Your task to perform on an android device: turn on sleep mode Image 0: 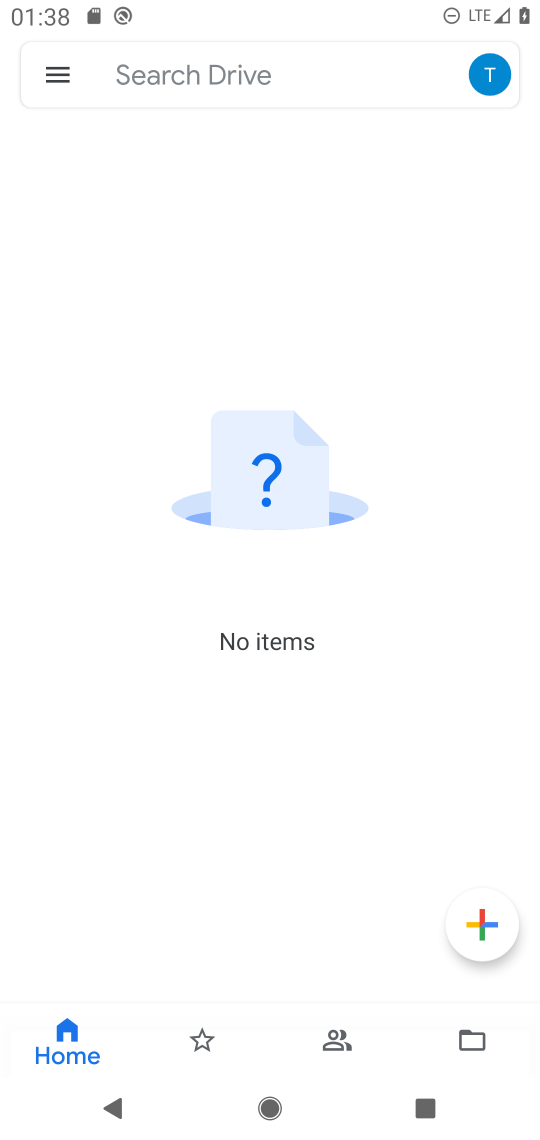
Step 0: press home button
Your task to perform on an android device: turn on sleep mode Image 1: 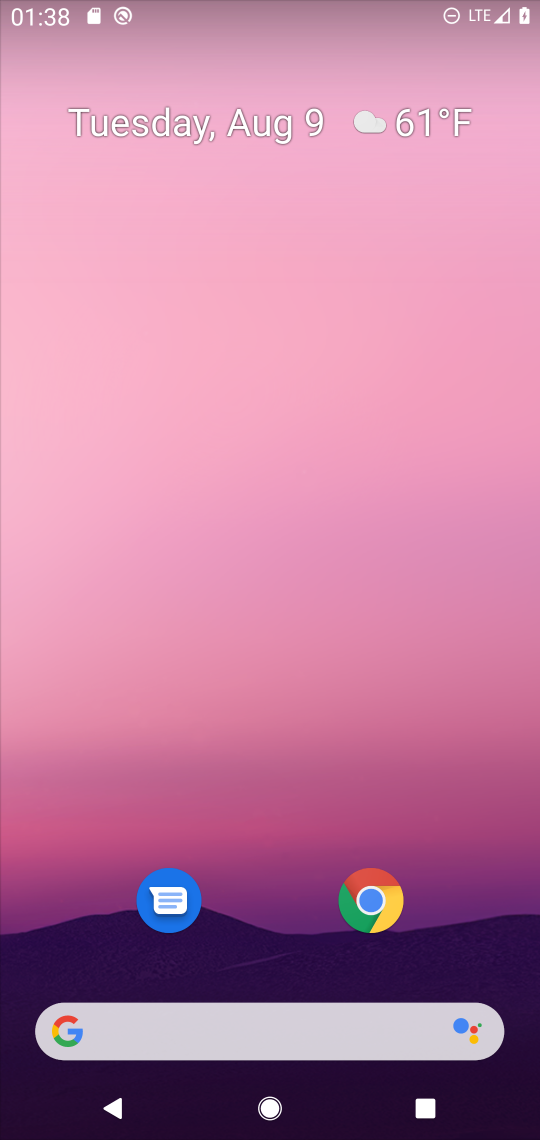
Step 1: drag from (257, 877) to (327, 95)
Your task to perform on an android device: turn on sleep mode Image 2: 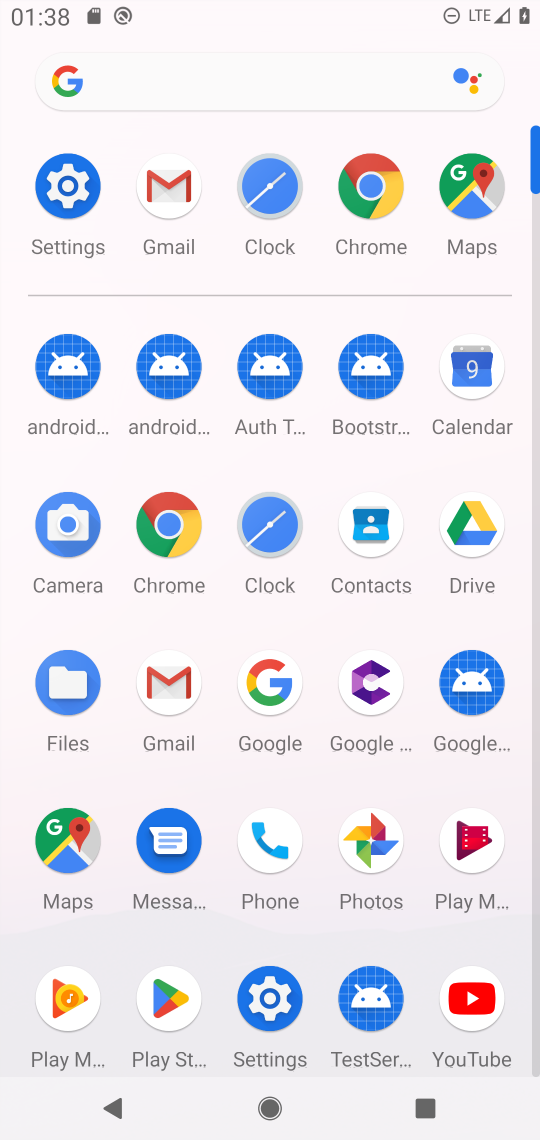
Step 2: click (69, 190)
Your task to perform on an android device: turn on sleep mode Image 3: 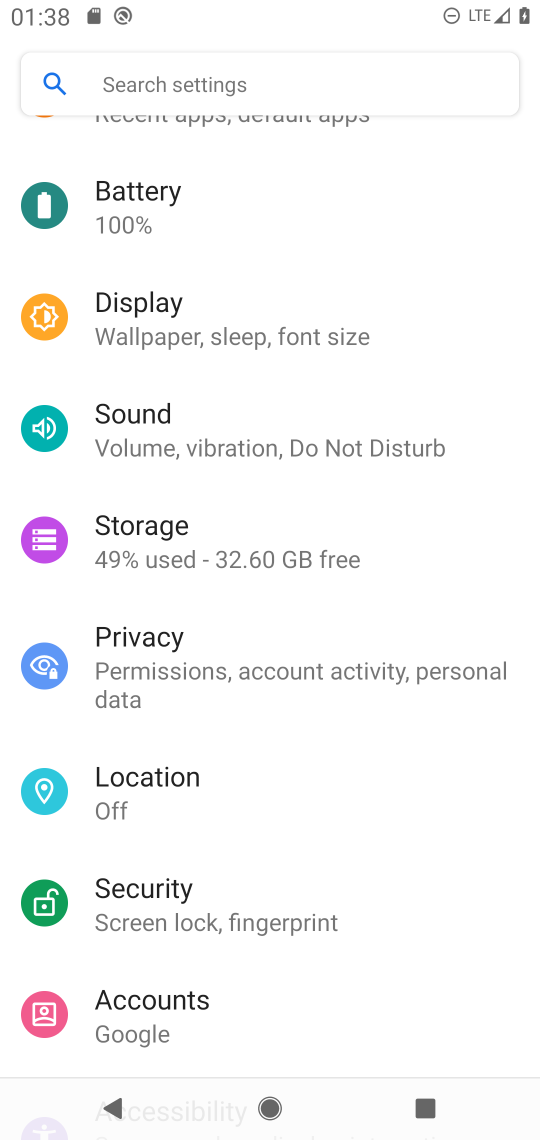
Step 3: drag from (470, 801) to (483, 470)
Your task to perform on an android device: turn on sleep mode Image 4: 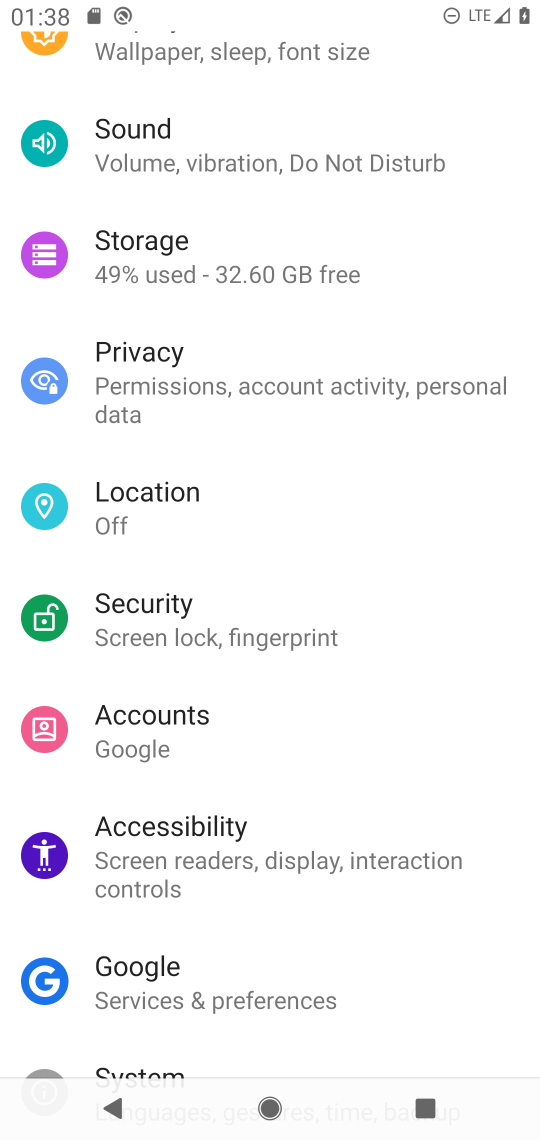
Step 4: drag from (450, 763) to (468, 439)
Your task to perform on an android device: turn on sleep mode Image 5: 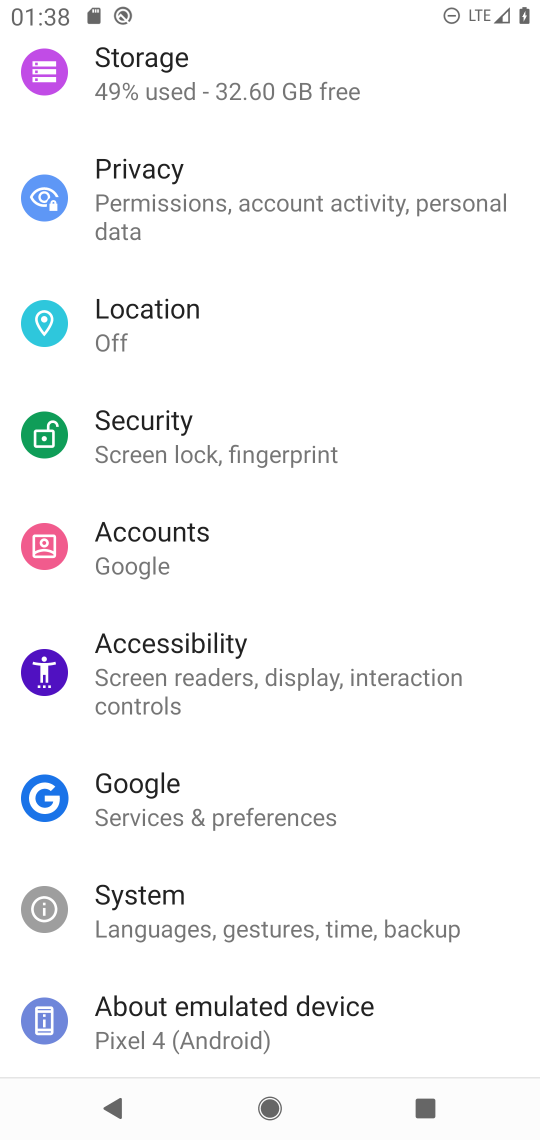
Step 5: drag from (424, 817) to (454, 385)
Your task to perform on an android device: turn on sleep mode Image 6: 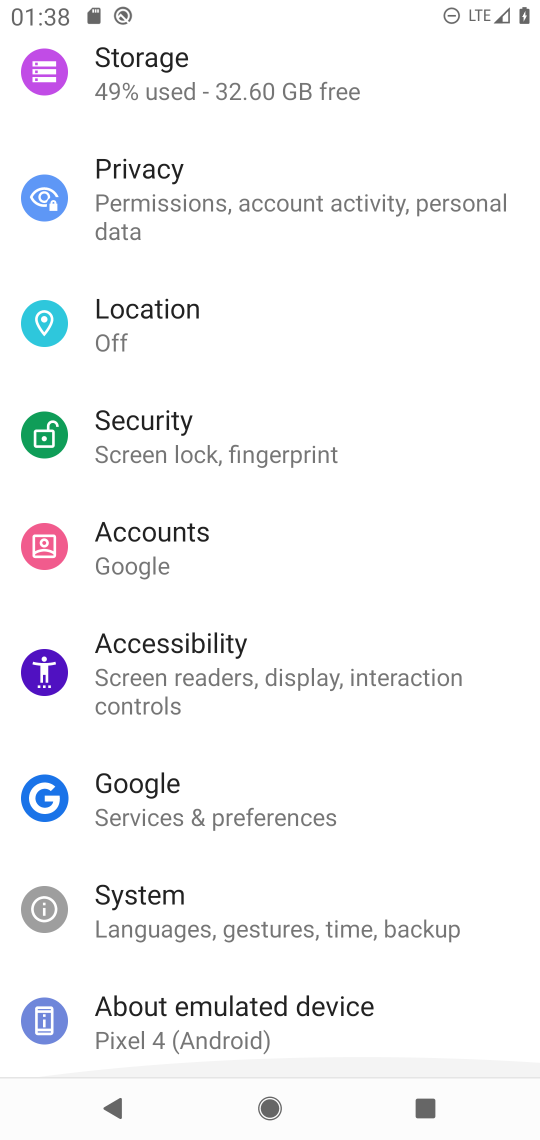
Step 6: drag from (444, 270) to (441, 651)
Your task to perform on an android device: turn on sleep mode Image 7: 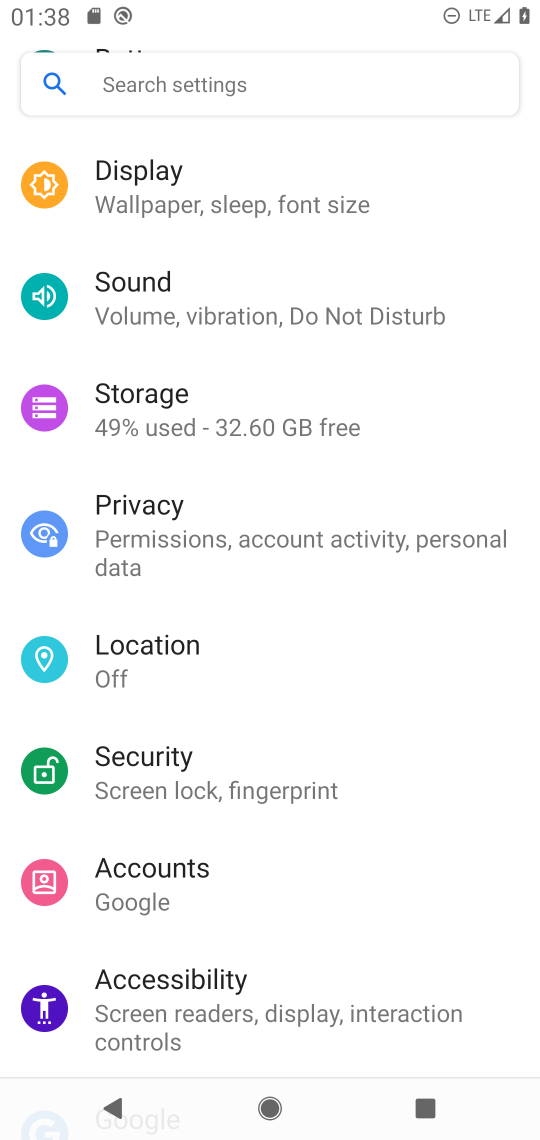
Step 7: drag from (469, 187) to (464, 599)
Your task to perform on an android device: turn on sleep mode Image 8: 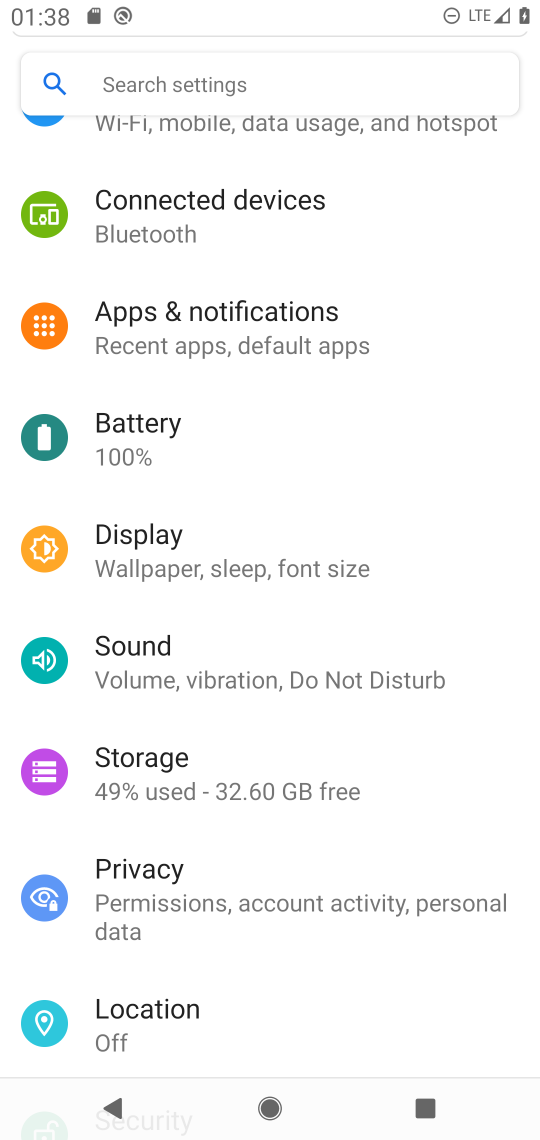
Step 8: drag from (479, 187) to (473, 600)
Your task to perform on an android device: turn on sleep mode Image 9: 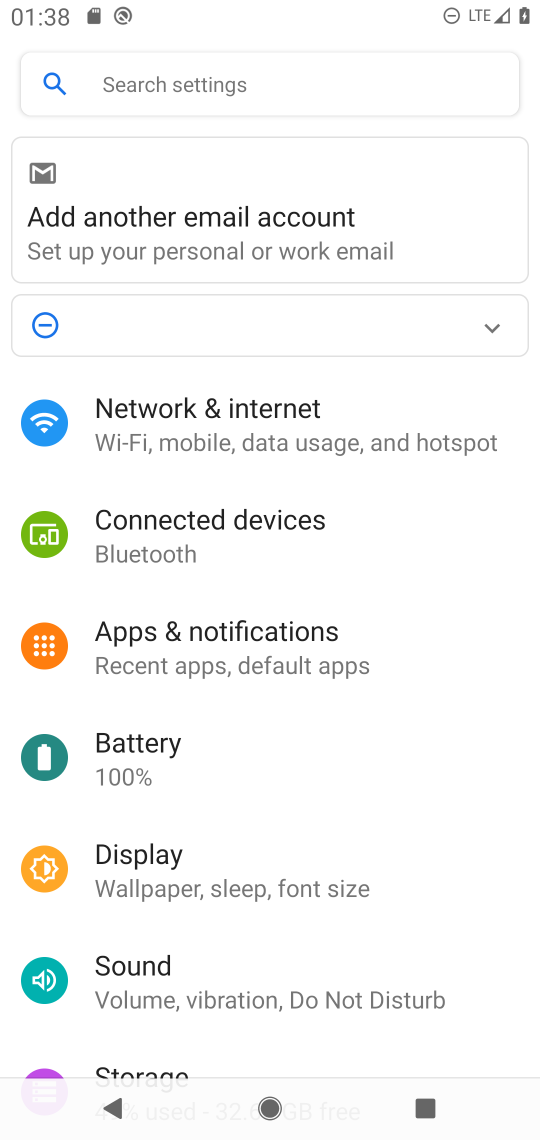
Step 9: drag from (444, 600) to (449, 803)
Your task to perform on an android device: turn on sleep mode Image 10: 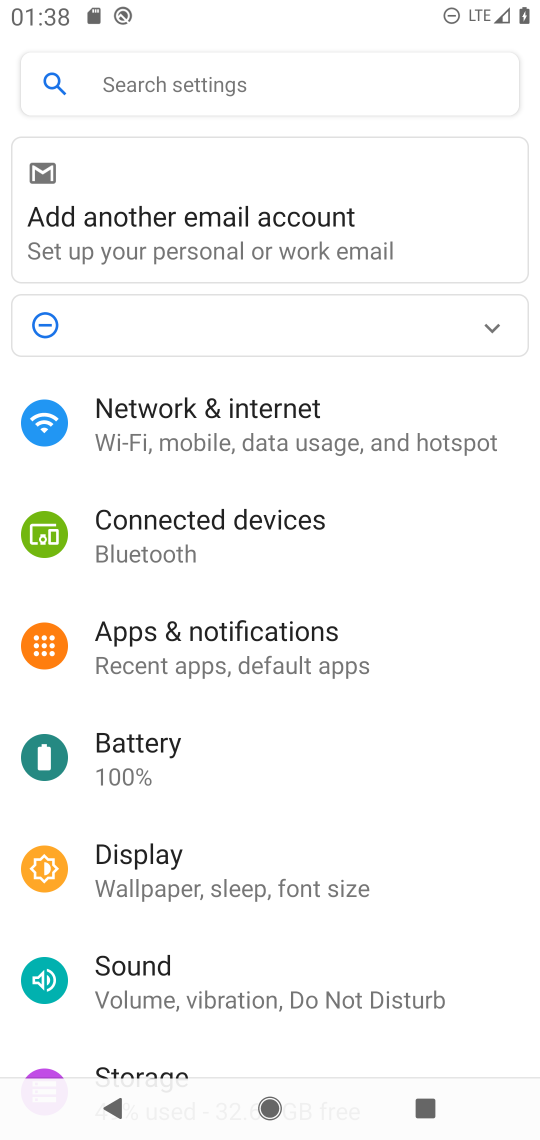
Step 10: click (179, 876)
Your task to perform on an android device: turn on sleep mode Image 11: 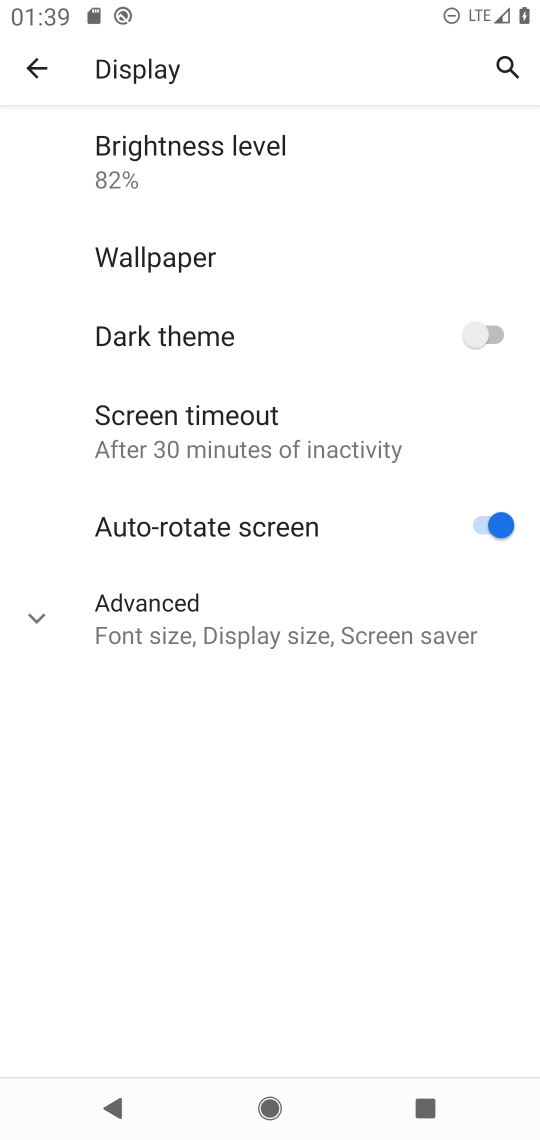
Step 11: click (265, 622)
Your task to perform on an android device: turn on sleep mode Image 12: 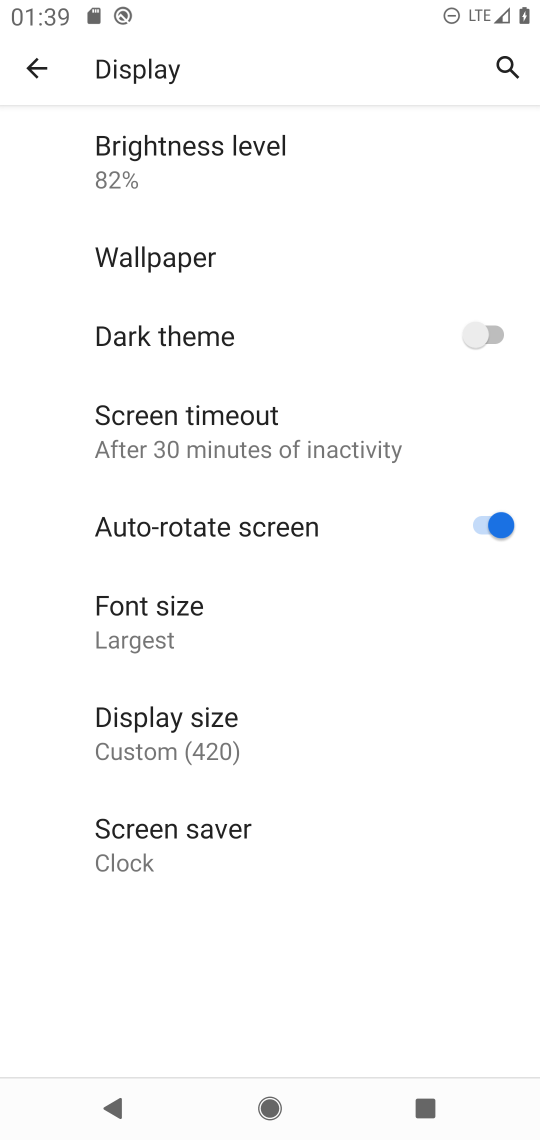
Step 12: task complete